Your task to perform on an android device: Search for vegetarian restaurants on Maps Image 0: 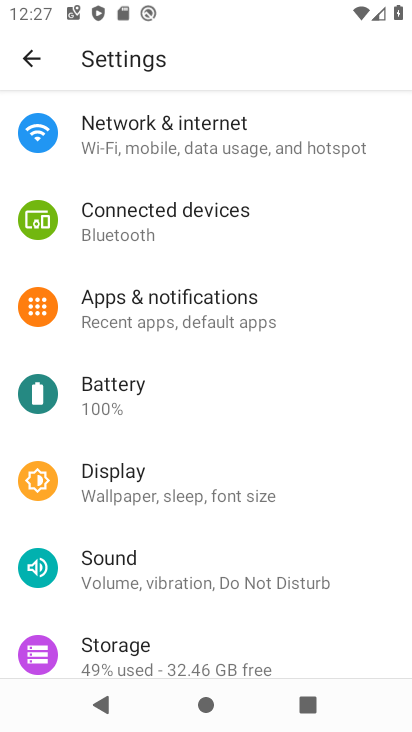
Step 0: press home button
Your task to perform on an android device: Search for vegetarian restaurants on Maps Image 1: 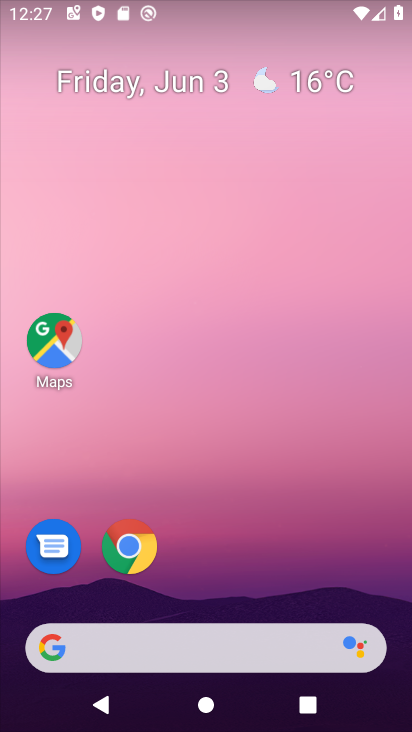
Step 1: click (50, 354)
Your task to perform on an android device: Search for vegetarian restaurants on Maps Image 2: 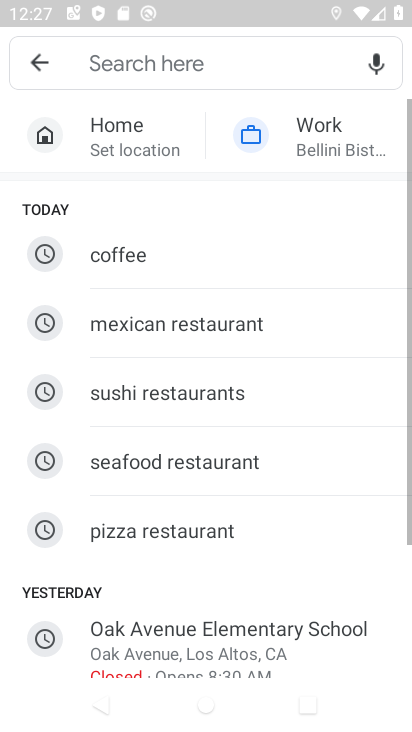
Step 2: click (125, 54)
Your task to perform on an android device: Search for vegetarian restaurants on Maps Image 3: 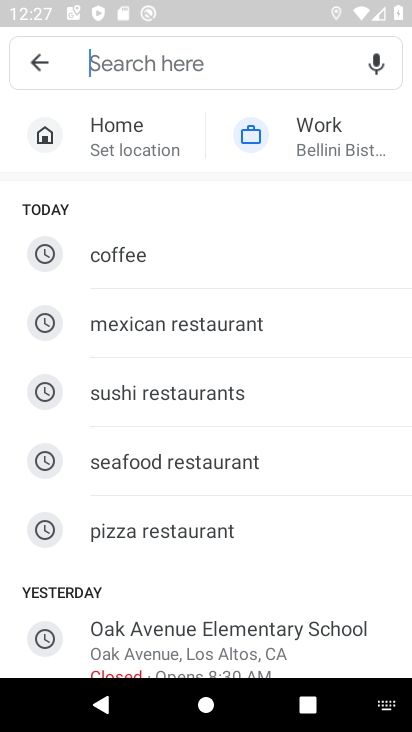
Step 3: type "vegetarian"
Your task to perform on an android device: Search for vegetarian restaurants on Maps Image 4: 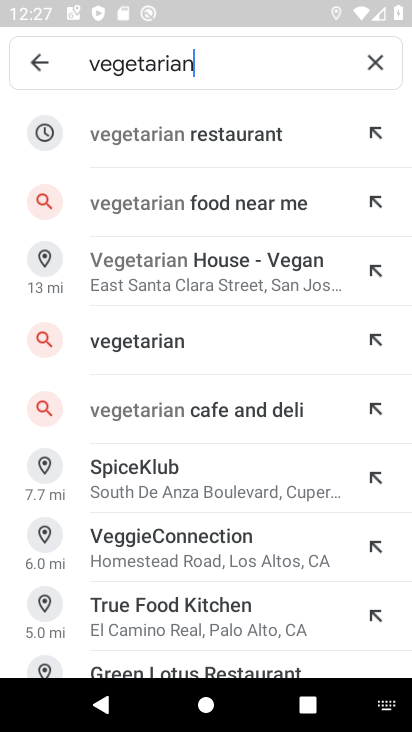
Step 4: click (227, 136)
Your task to perform on an android device: Search for vegetarian restaurants on Maps Image 5: 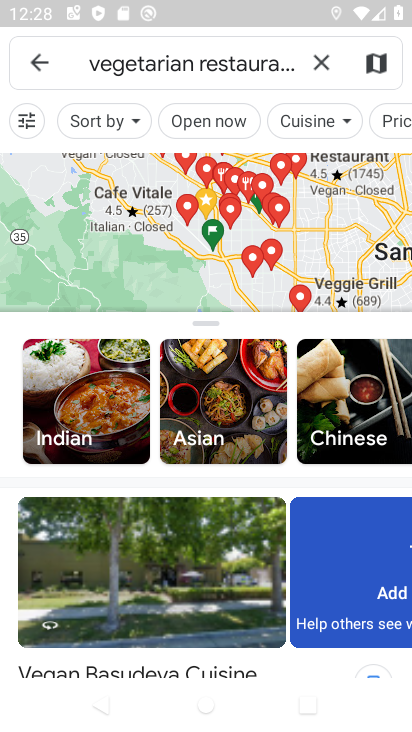
Step 5: task complete